Your task to perform on an android device: choose inbox layout in the gmail app Image 0: 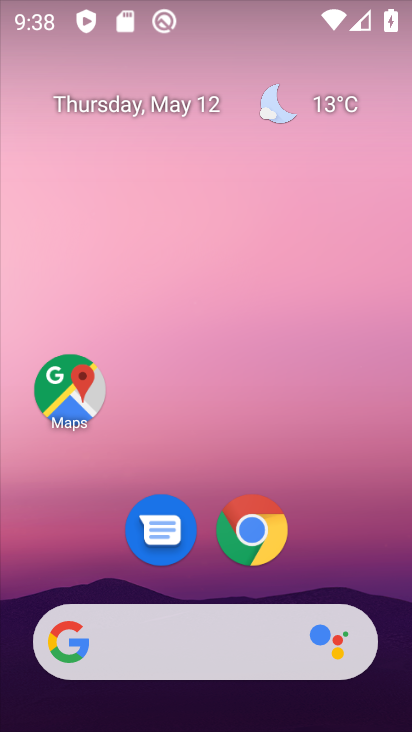
Step 0: drag from (315, 564) to (304, 52)
Your task to perform on an android device: choose inbox layout in the gmail app Image 1: 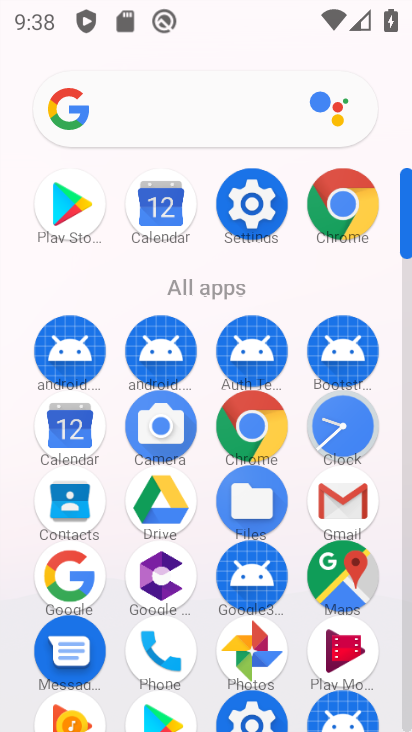
Step 1: click (340, 511)
Your task to perform on an android device: choose inbox layout in the gmail app Image 2: 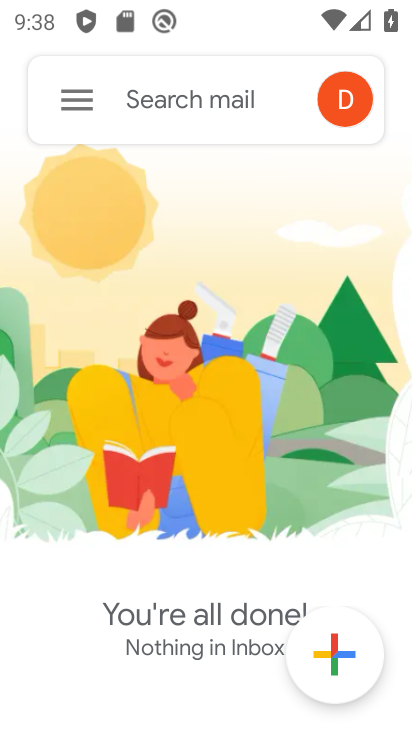
Step 2: click (83, 101)
Your task to perform on an android device: choose inbox layout in the gmail app Image 3: 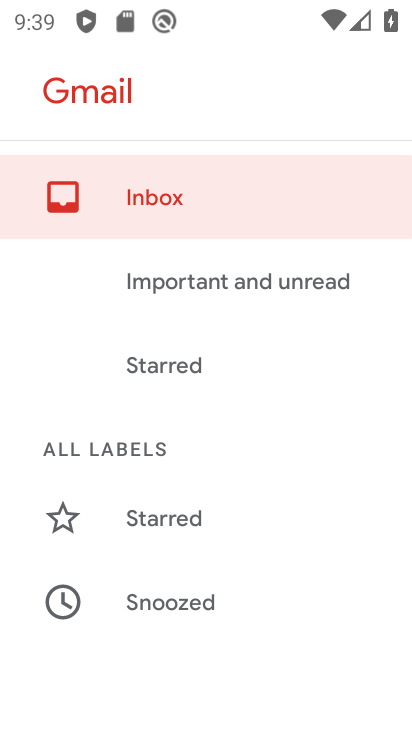
Step 3: drag from (282, 580) to (311, 331)
Your task to perform on an android device: choose inbox layout in the gmail app Image 4: 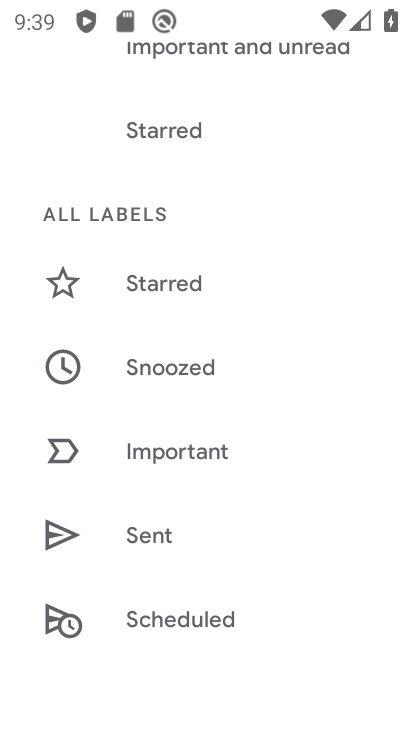
Step 4: drag from (262, 578) to (268, 272)
Your task to perform on an android device: choose inbox layout in the gmail app Image 5: 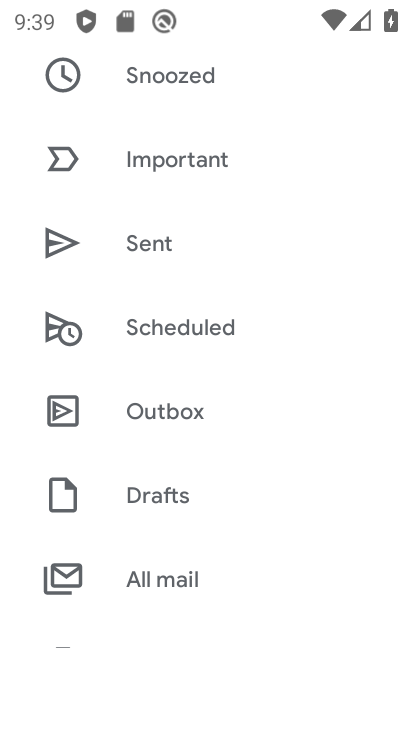
Step 5: drag from (232, 580) to (274, 199)
Your task to perform on an android device: choose inbox layout in the gmail app Image 6: 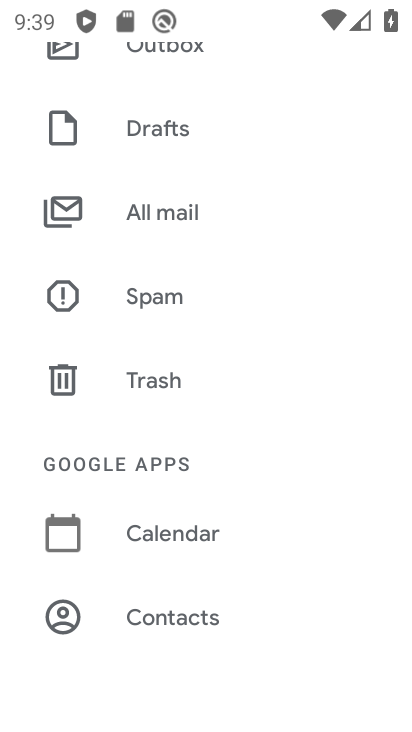
Step 6: drag from (221, 573) to (246, 282)
Your task to perform on an android device: choose inbox layout in the gmail app Image 7: 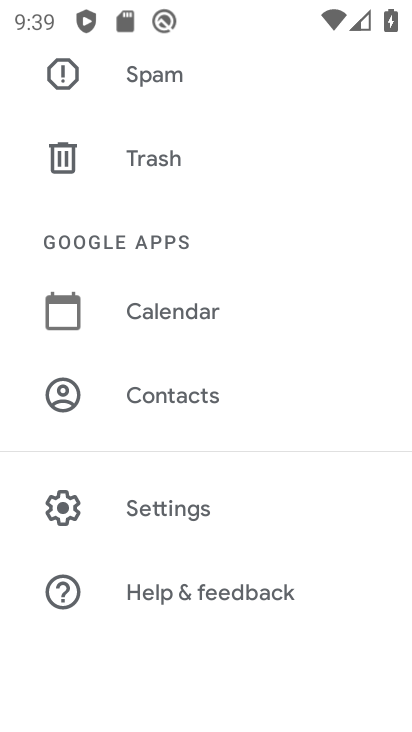
Step 7: click (203, 510)
Your task to perform on an android device: choose inbox layout in the gmail app Image 8: 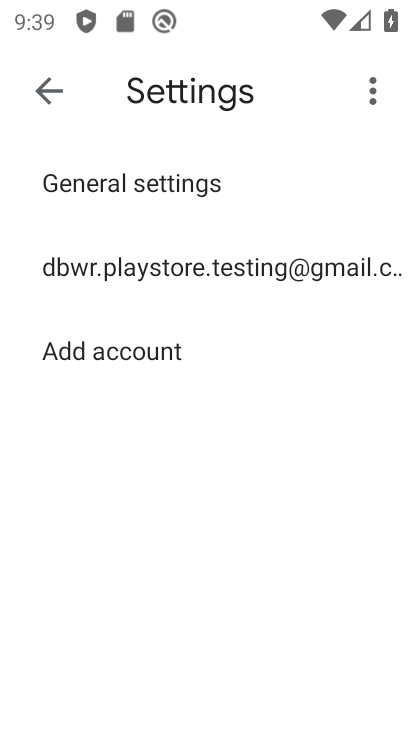
Step 8: click (215, 268)
Your task to perform on an android device: choose inbox layout in the gmail app Image 9: 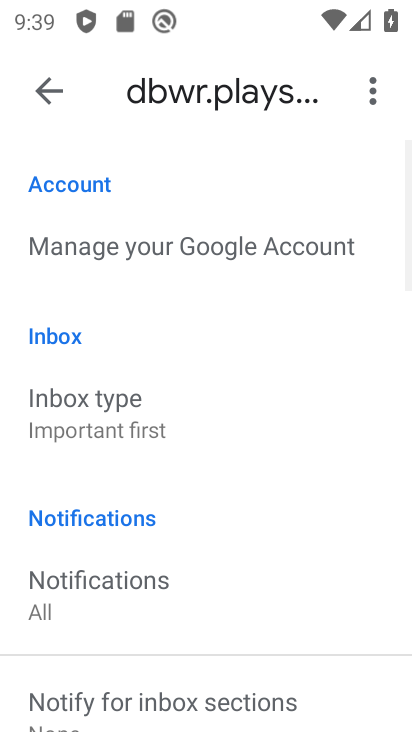
Step 9: click (132, 431)
Your task to perform on an android device: choose inbox layout in the gmail app Image 10: 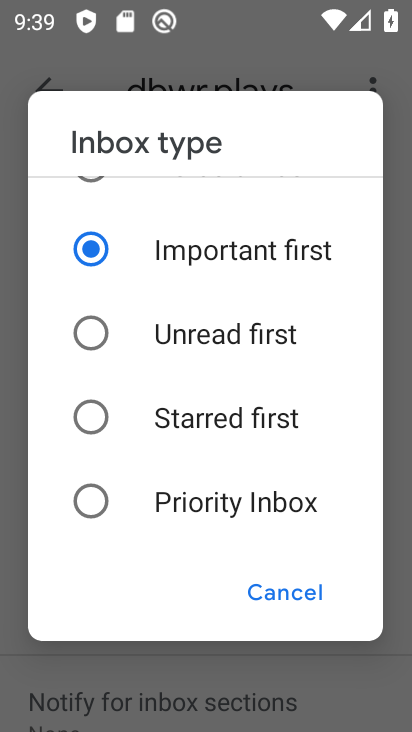
Step 10: click (92, 500)
Your task to perform on an android device: choose inbox layout in the gmail app Image 11: 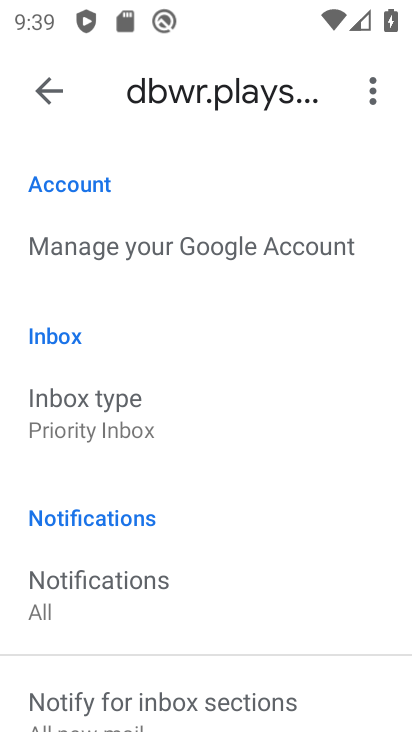
Step 11: task complete